Your task to perform on an android device: turn pop-ups on in chrome Image 0: 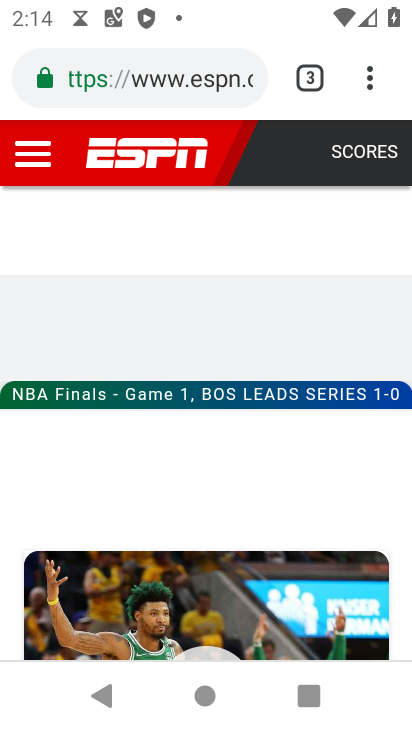
Step 0: press home button
Your task to perform on an android device: turn pop-ups on in chrome Image 1: 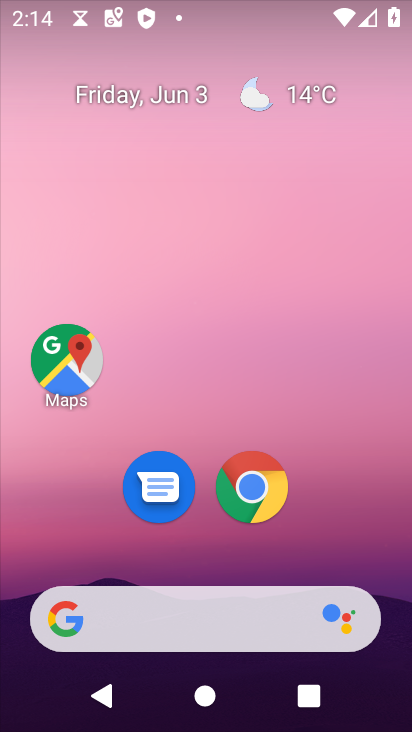
Step 1: click (252, 482)
Your task to perform on an android device: turn pop-ups on in chrome Image 2: 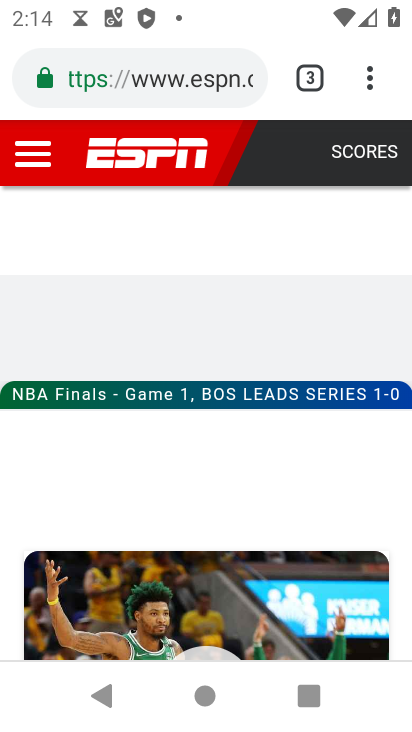
Step 2: click (364, 81)
Your task to perform on an android device: turn pop-ups on in chrome Image 3: 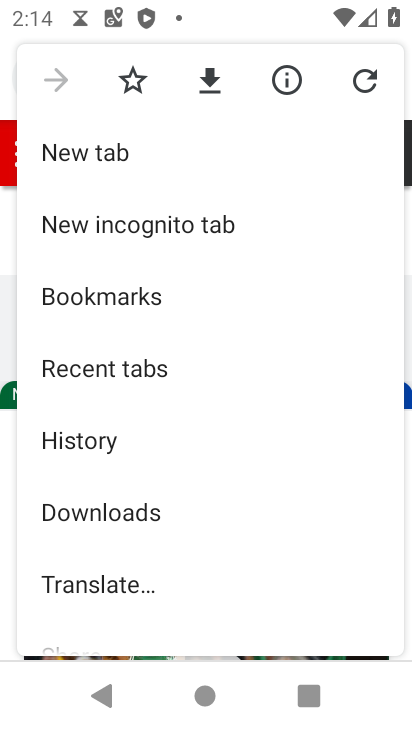
Step 3: drag from (286, 480) to (237, 55)
Your task to perform on an android device: turn pop-ups on in chrome Image 4: 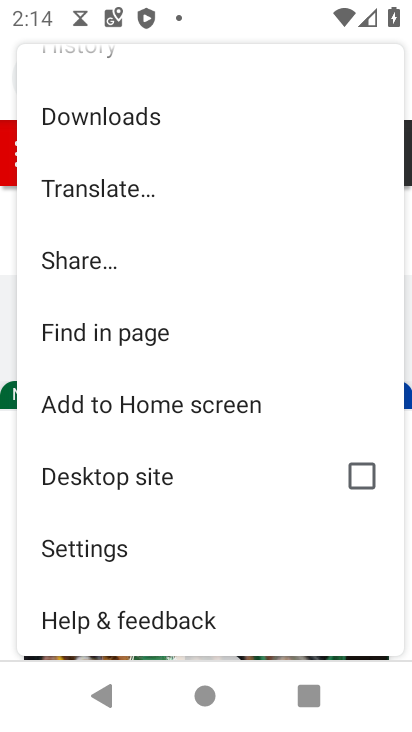
Step 4: click (199, 544)
Your task to perform on an android device: turn pop-ups on in chrome Image 5: 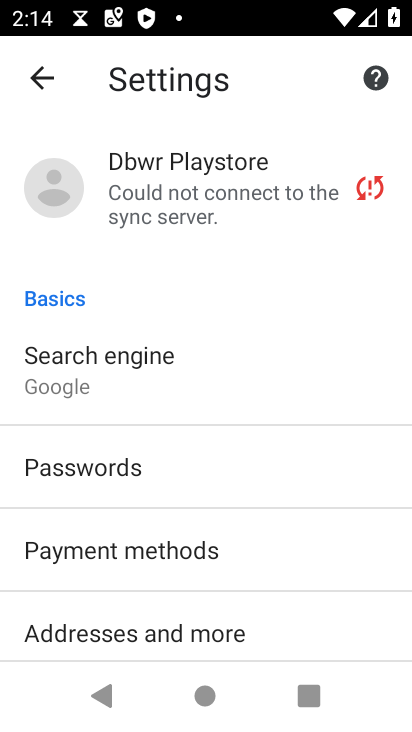
Step 5: drag from (248, 573) to (217, 127)
Your task to perform on an android device: turn pop-ups on in chrome Image 6: 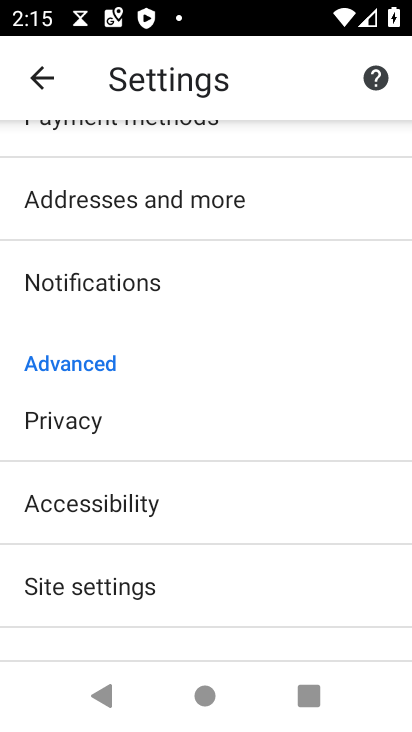
Step 6: click (182, 588)
Your task to perform on an android device: turn pop-ups on in chrome Image 7: 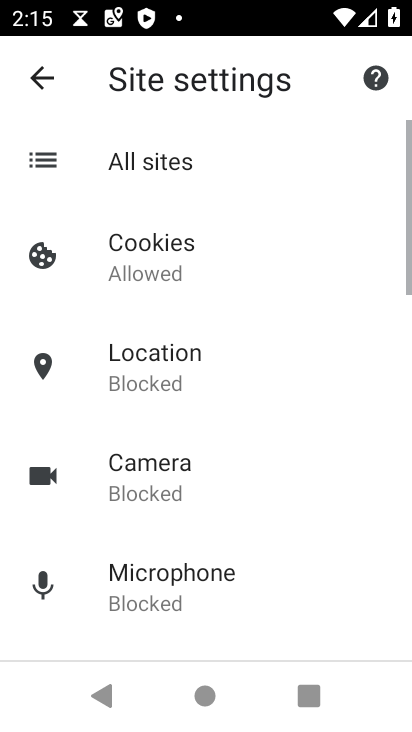
Step 7: drag from (242, 498) to (214, 96)
Your task to perform on an android device: turn pop-ups on in chrome Image 8: 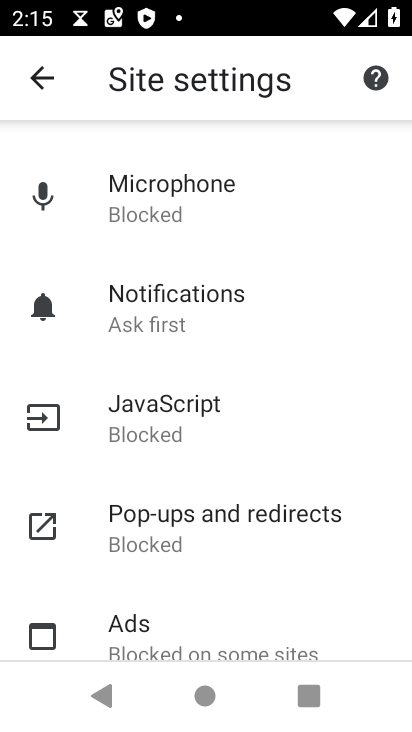
Step 8: click (226, 516)
Your task to perform on an android device: turn pop-ups on in chrome Image 9: 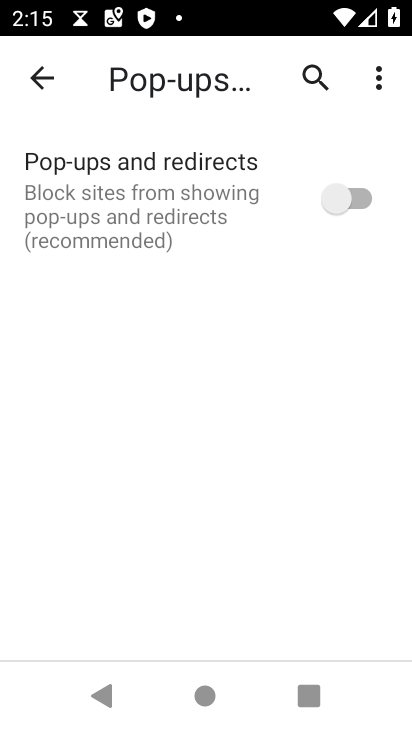
Step 9: click (349, 199)
Your task to perform on an android device: turn pop-ups on in chrome Image 10: 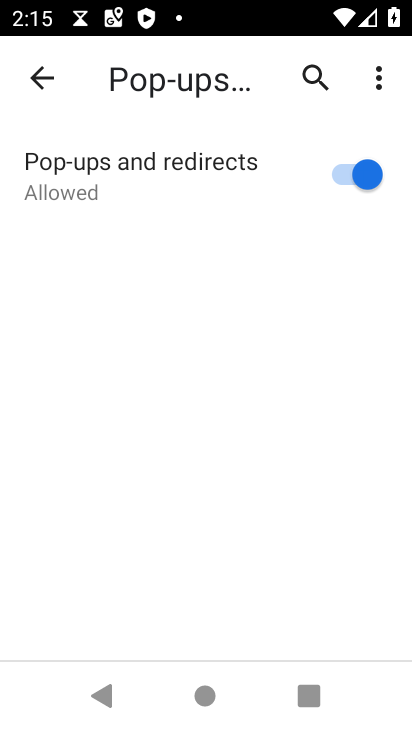
Step 10: task complete